Your task to perform on an android device: check android version Image 0: 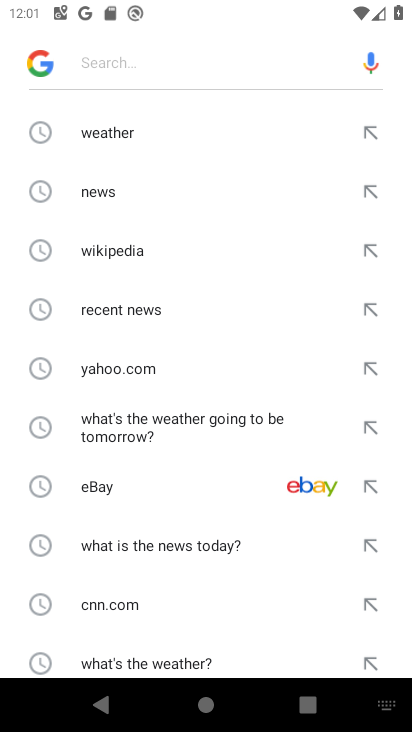
Step 0: press home button
Your task to perform on an android device: check android version Image 1: 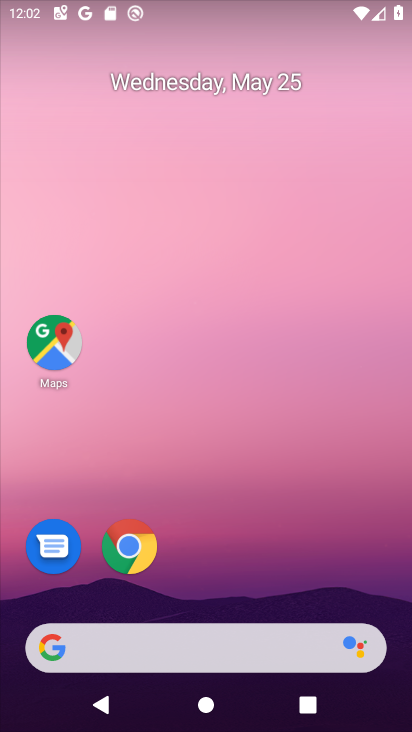
Step 1: drag from (222, 597) to (368, 5)
Your task to perform on an android device: check android version Image 2: 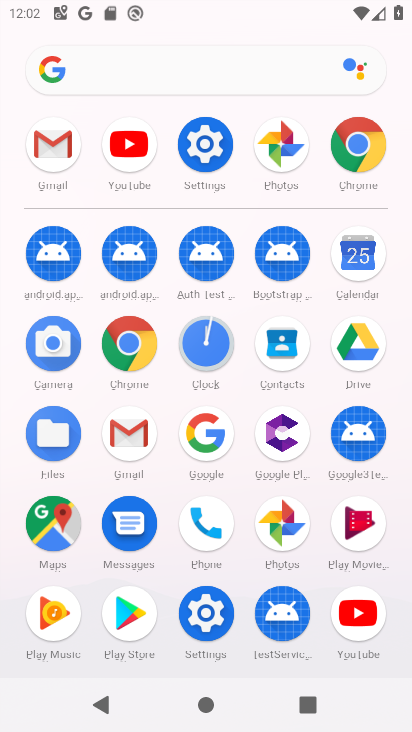
Step 2: click (209, 623)
Your task to perform on an android device: check android version Image 3: 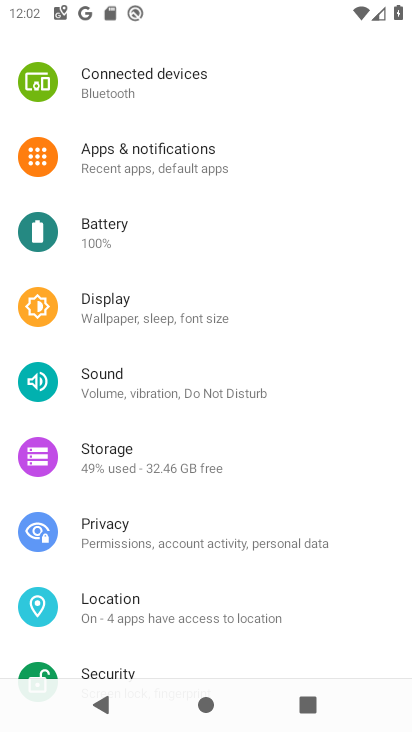
Step 3: drag from (184, 636) to (210, 87)
Your task to perform on an android device: check android version Image 4: 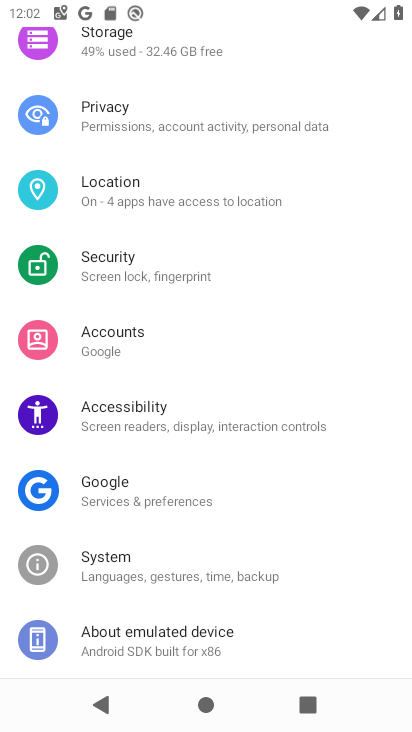
Step 4: drag from (159, 614) to (196, 357)
Your task to perform on an android device: check android version Image 5: 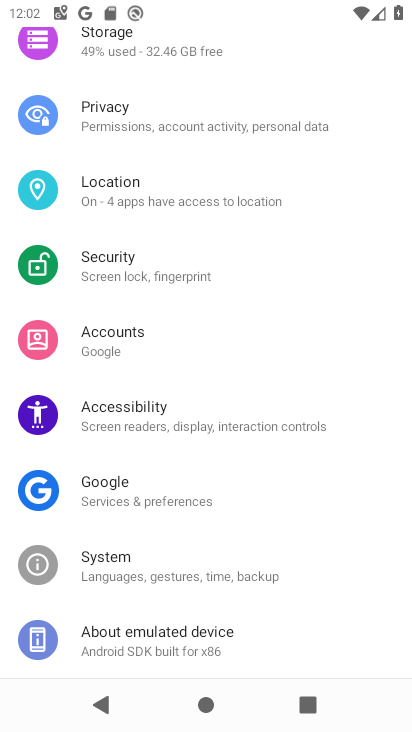
Step 5: click (166, 645)
Your task to perform on an android device: check android version Image 6: 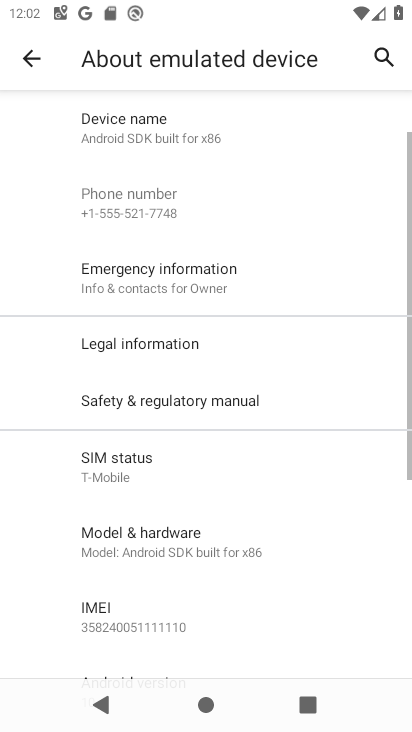
Step 6: drag from (188, 539) to (245, 104)
Your task to perform on an android device: check android version Image 7: 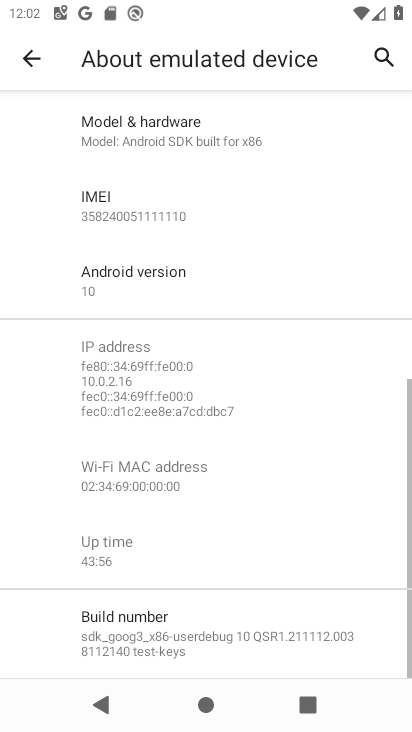
Step 7: click (149, 285)
Your task to perform on an android device: check android version Image 8: 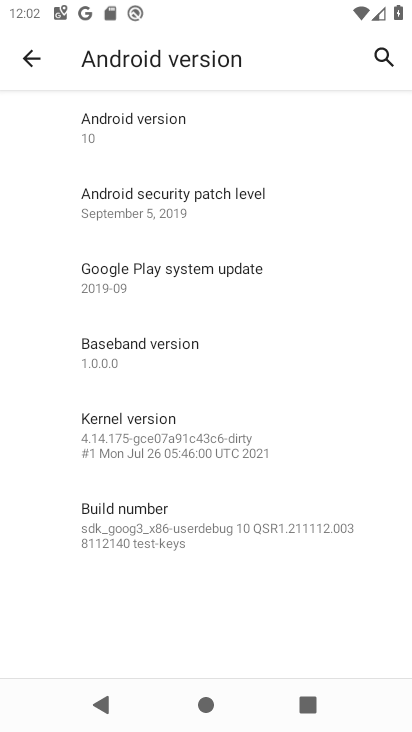
Step 8: task complete